Your task to perform on an android device: open a bookmark in the chrome app Image 0: 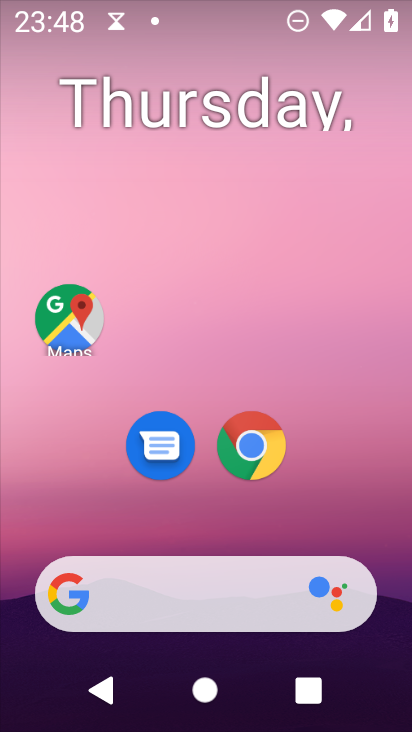
Step 0: click (261, 442)
Your task to perform on an android device: open a bookmark in the chrome app Image 1: 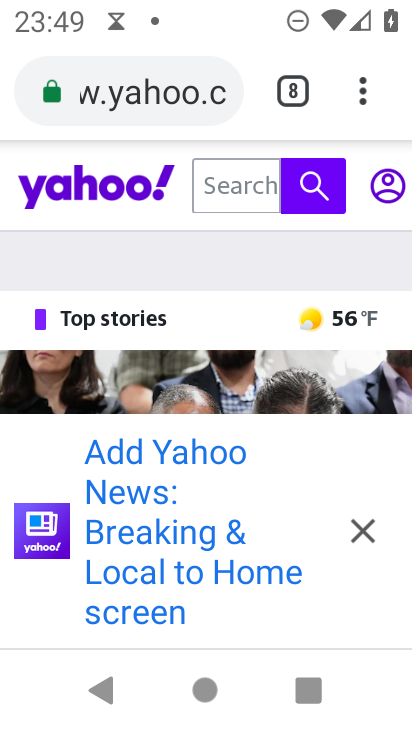
Step 1: click (360, 101)
Your task to perform on an android device: open a bookmark in the chrome app Image 2: 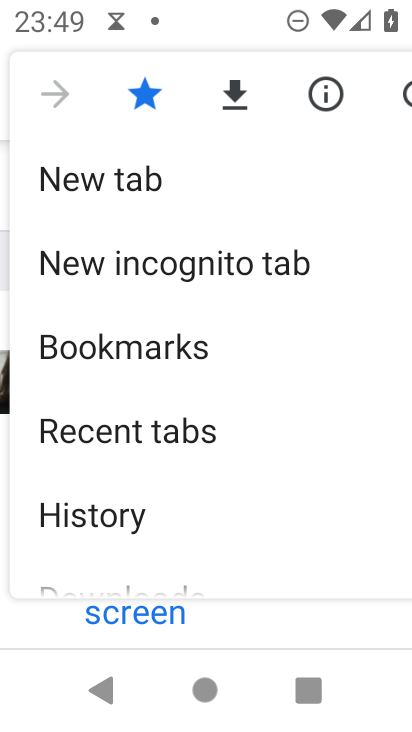
Step 2: click (211, 35)
Your task to perform on an android device: open a bookmark in the chrome app Image 3: 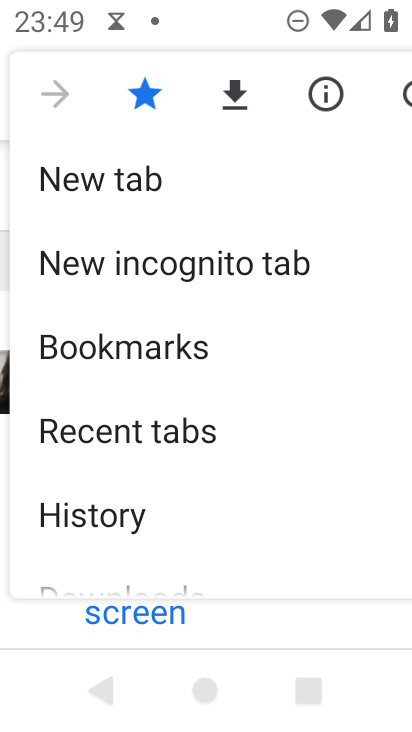
Step 3: task complete